Your task to perform on an android device: remove spam from my inbox in the gmail app Image 0: 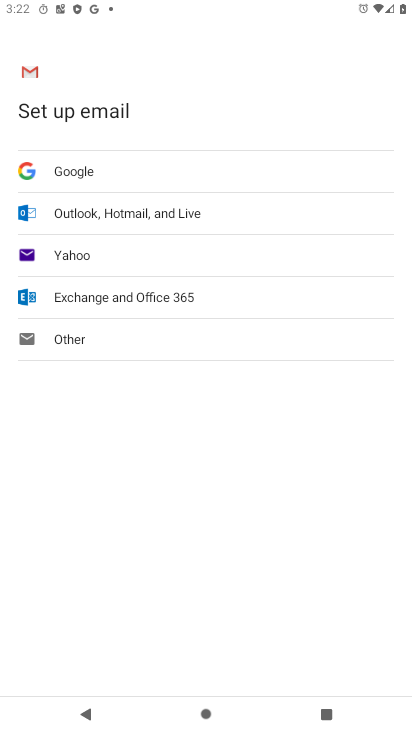
Step 0: press home button
Your task to perform on an android device: remove spam from my inbox in the gmail app Image 1: 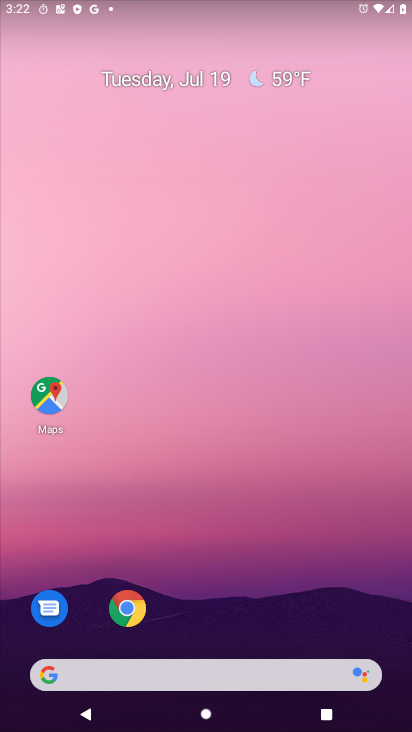
Step 1: drag from (328, 615) to (239, 105)
Your task to perform on an android device: remove spam from my inbox in the gmail app Image 2: 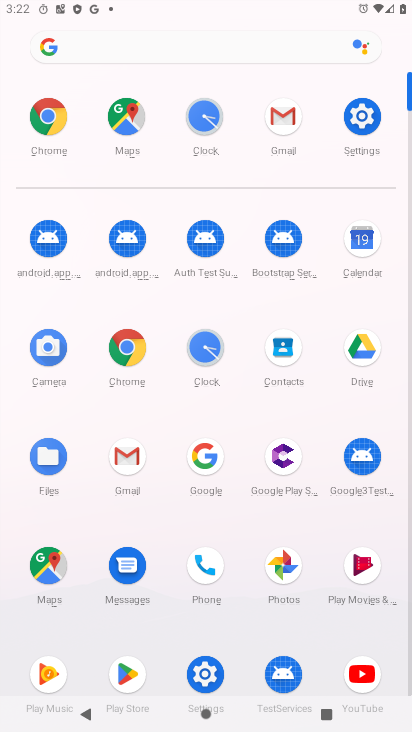
Step 2: click (288, 123)
Your task to perform on an android device: remove spam from my inbox in the gmail app Image 3: 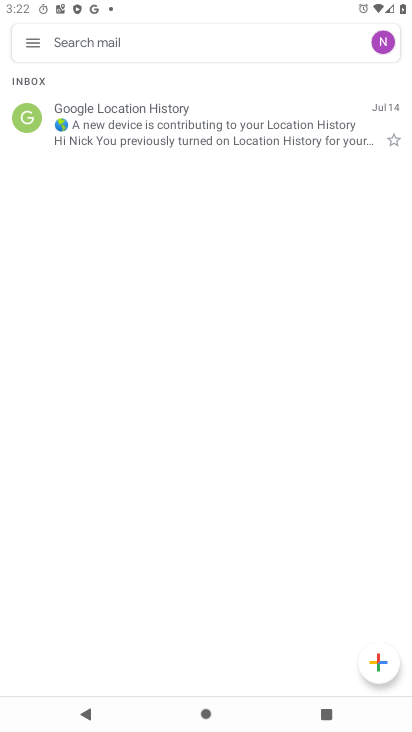
Step 3: click (39, 54)
Your task to perform on an android device: remove spam from my inbox in the gmail app Image 4: 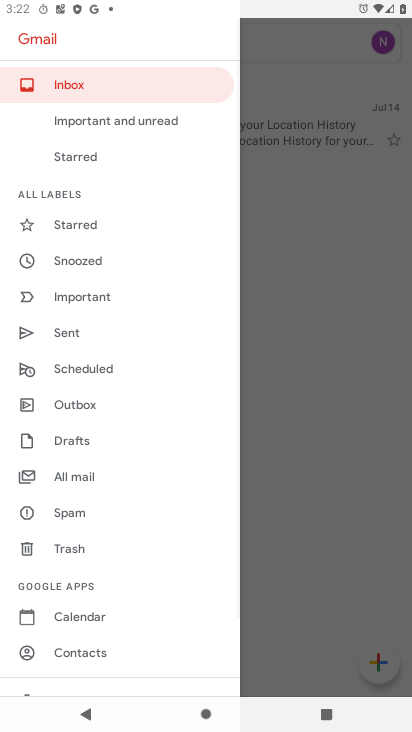
Step 4: click (87, 502)
Your task to perform on an android device: remove spam from my inbox in the gmail app Image 5: 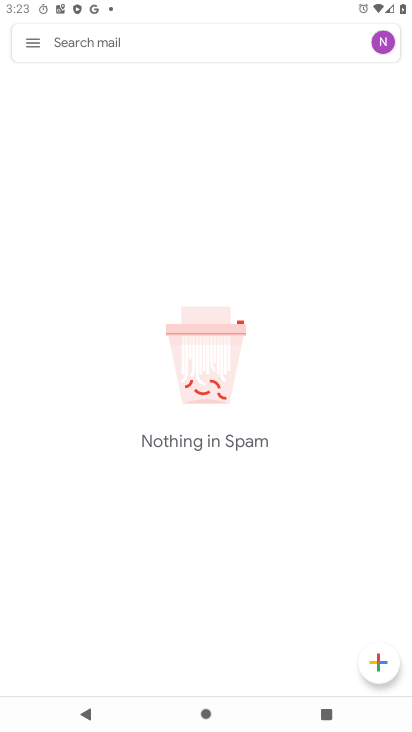
Step 5: click (37, 39)
Your task to perform on an android device: remove spam from my inbox in the gmail app Image 6: 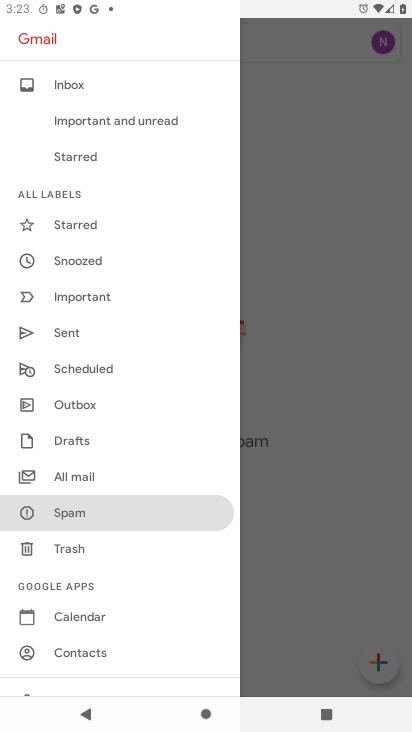
Step 6: click (183, 507)
Your task to perform on an android device: remove spam from my inbox in the gmail app Image 7: 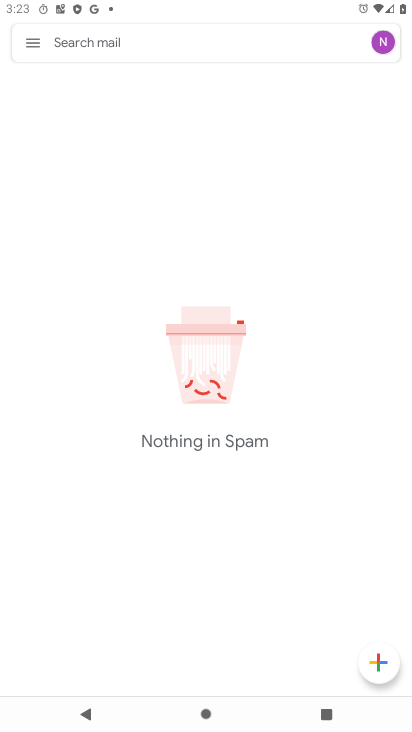
Step 7: task complete